Your task to perform on an android device: Is it going to rain tomorrow? Image 0: 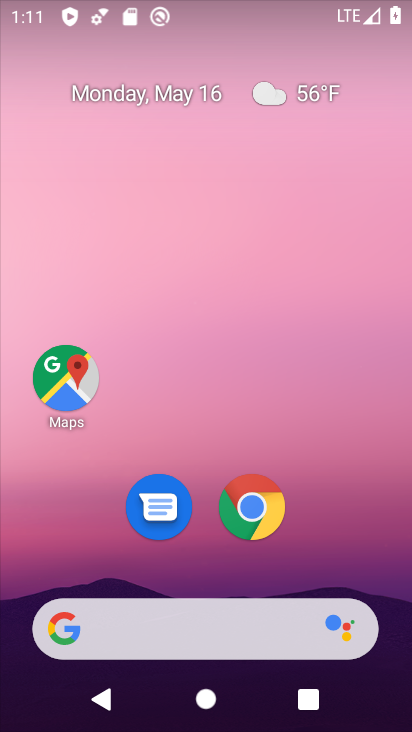
Step 0: drag from (188, 567) to (195, 141)
Your task to perform on an android device: Is it going to rain tomorrow? Image 1: 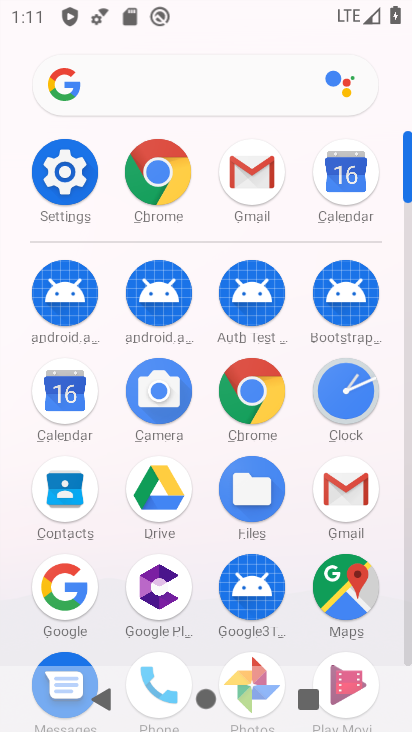
Step 1: click (89, 575)
Your task to perform on an android device: Is it going to rain tomorrow? Image 2: 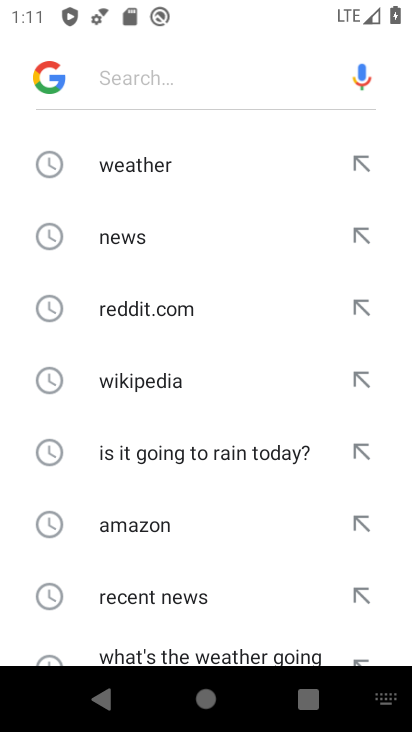
Step 2: click (167, 95)
Your task to perform on an android device: Is it going to rain tomorrow? Image 3: 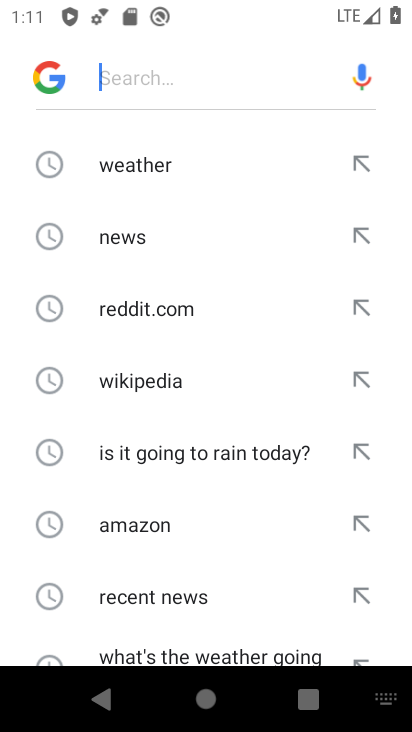
Step 3: click (127, 167)
Your task to perform on an android device: Is it going to rain tomorrow? Image 4: 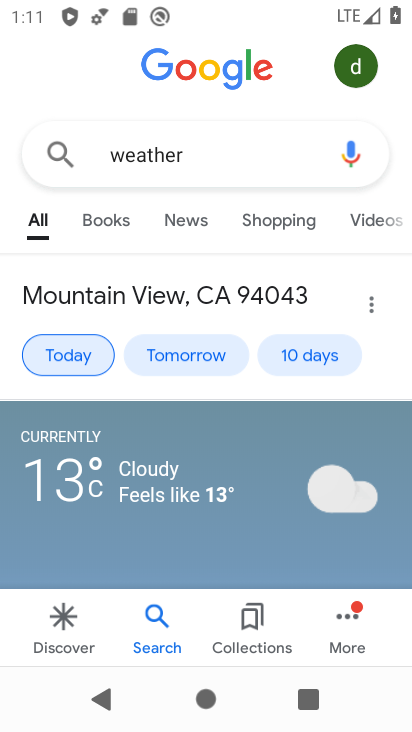
Step 4: drag from (232, 499) to (227, 232)
Your task to perform on an android device: Is it going to rain tomorrow? Image 5: 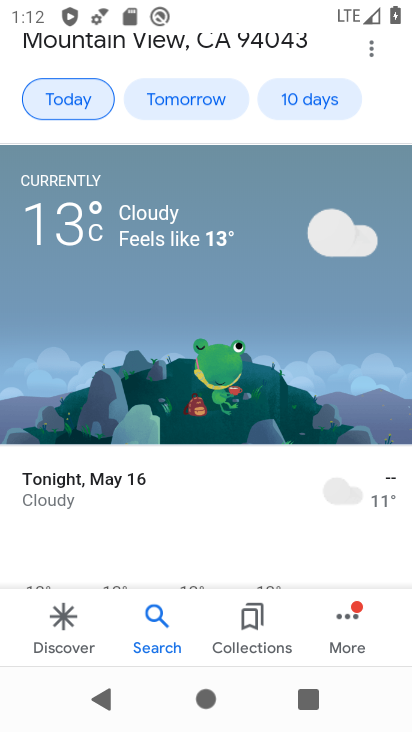
Step 5: click (176, 101)
Your task to perform on an android device: Is it going to rain tomorrow? Image 6: 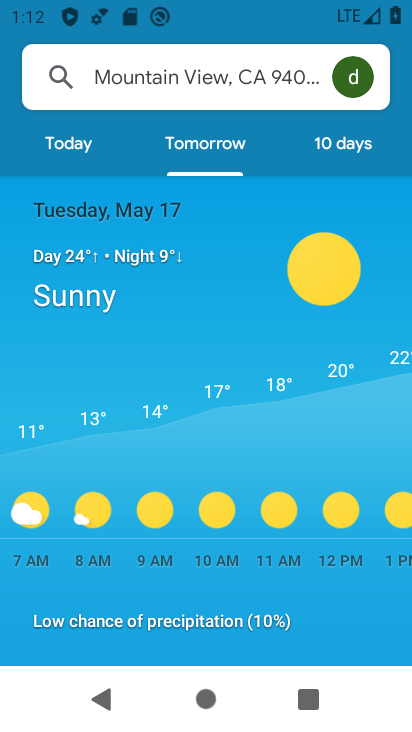
Step 6: task complete